Your task to perform on an android device: Check the news Image 0: 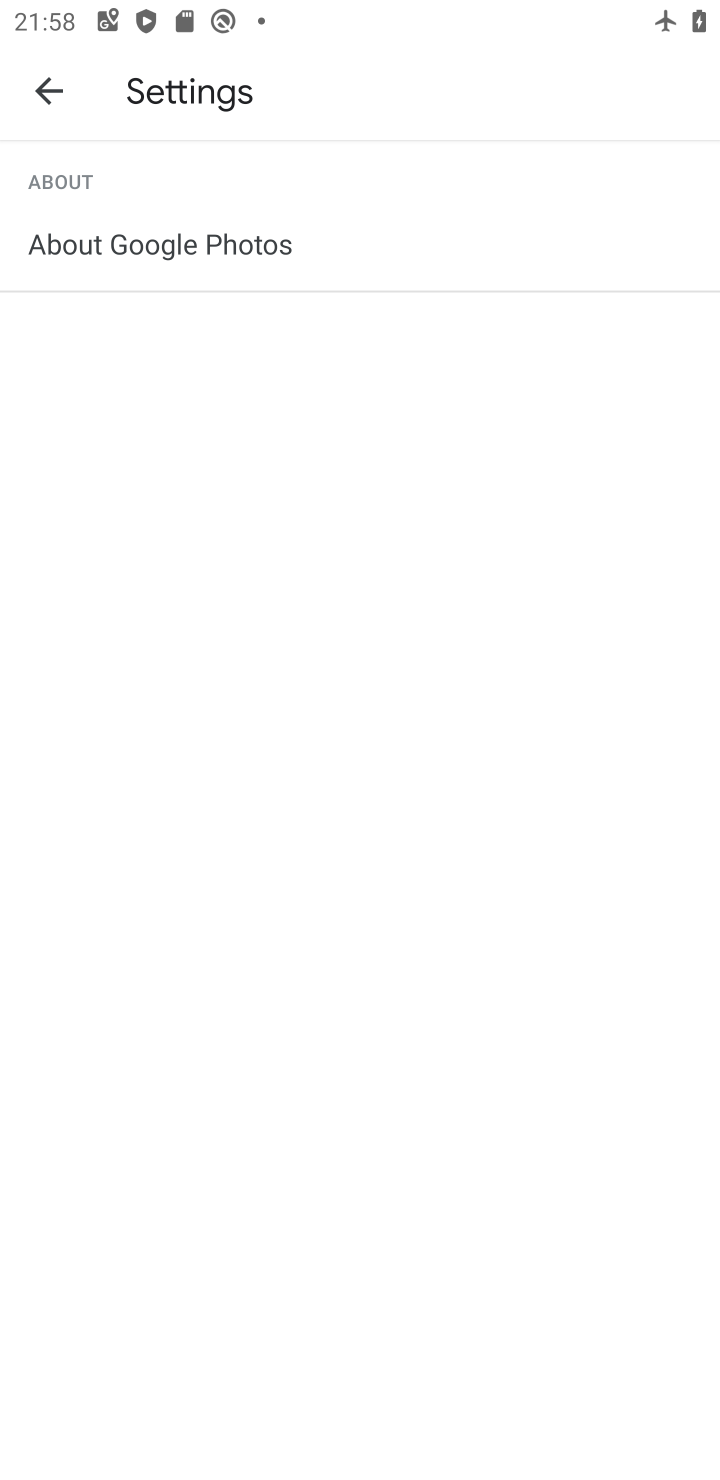
Step 0: press home button
Your task to perform on an android device: Check the news Image 1: 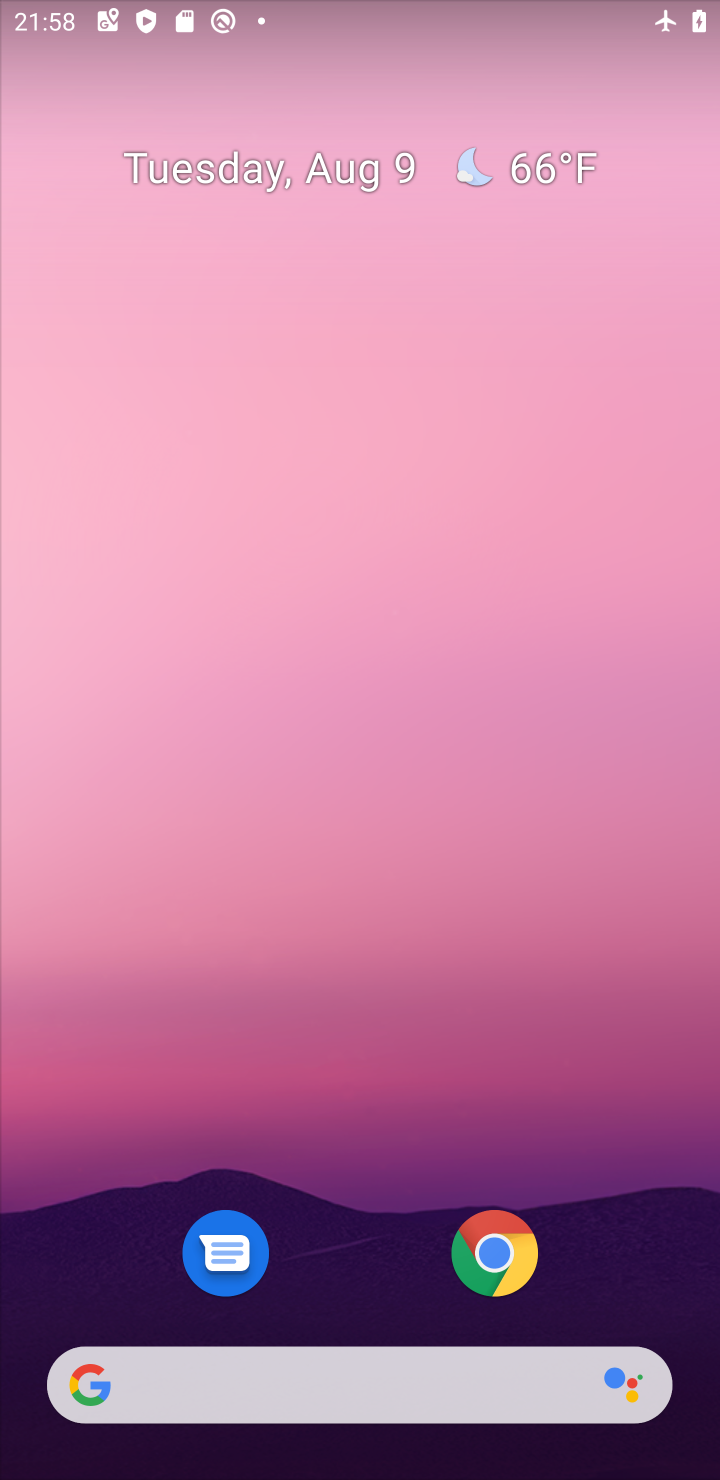
Step 1: click (457, 1305)
Your task to perform on an android device: Check the news Image 2: 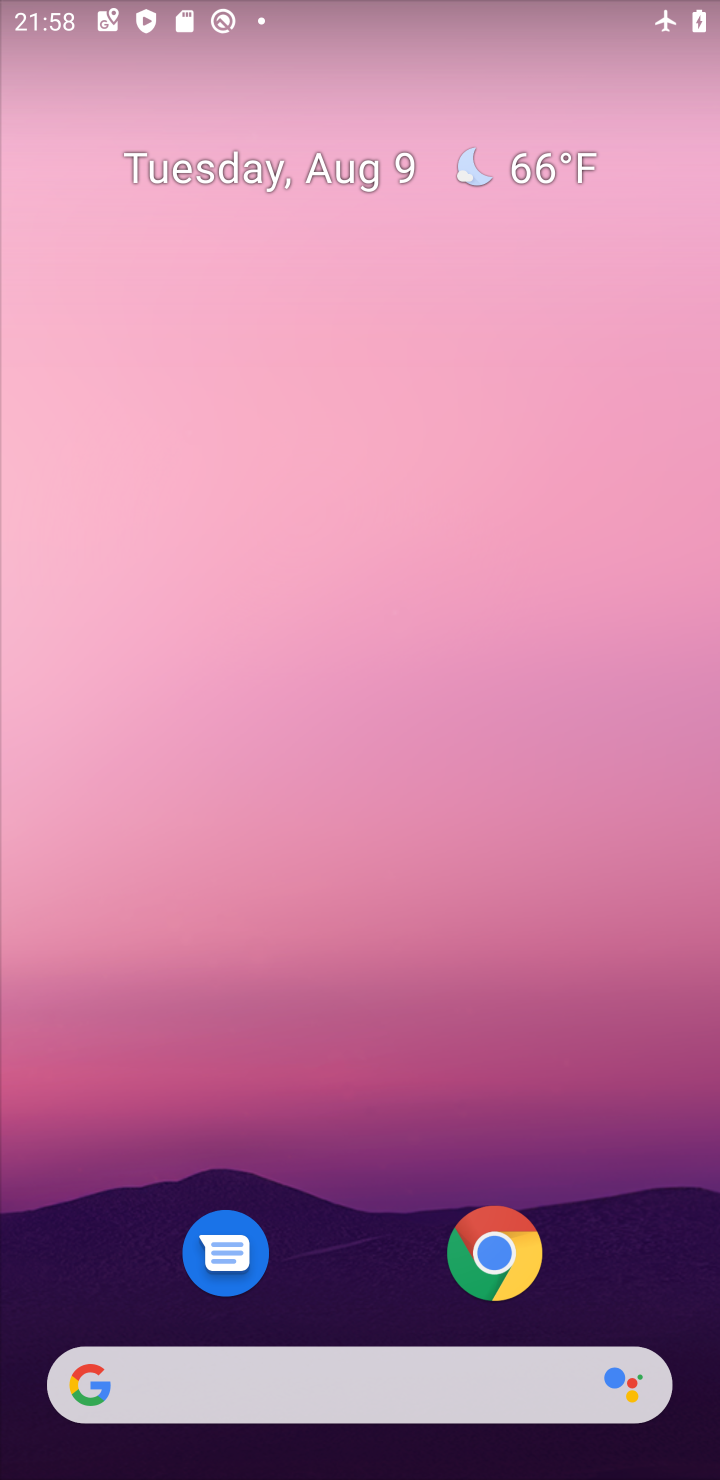
Step 2: drag from (366, 1245) to (546, 397)
Your task to perform on an android device: Check the news Image 3: 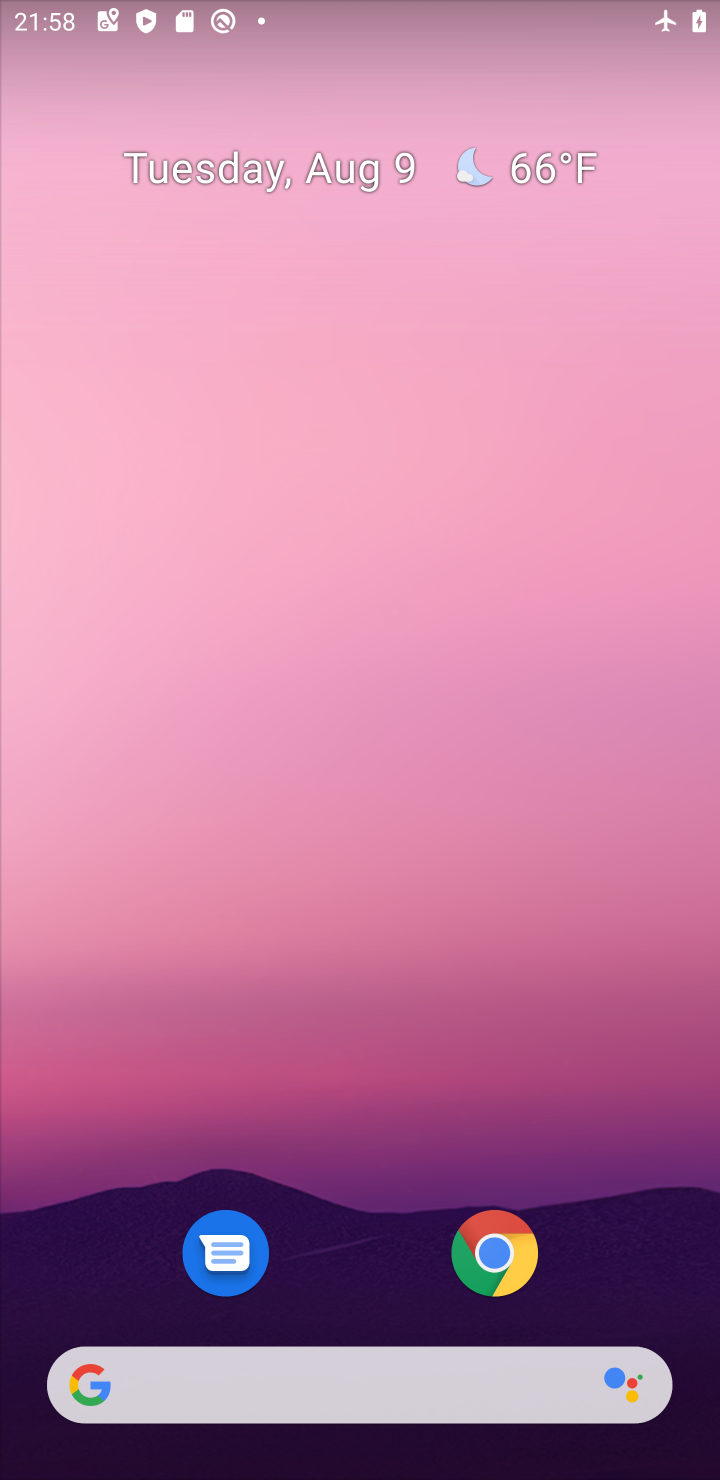
Step 3: drag from (372, 914) to (523, 292)
Your task to perform on an android device: Check the news Image 4: 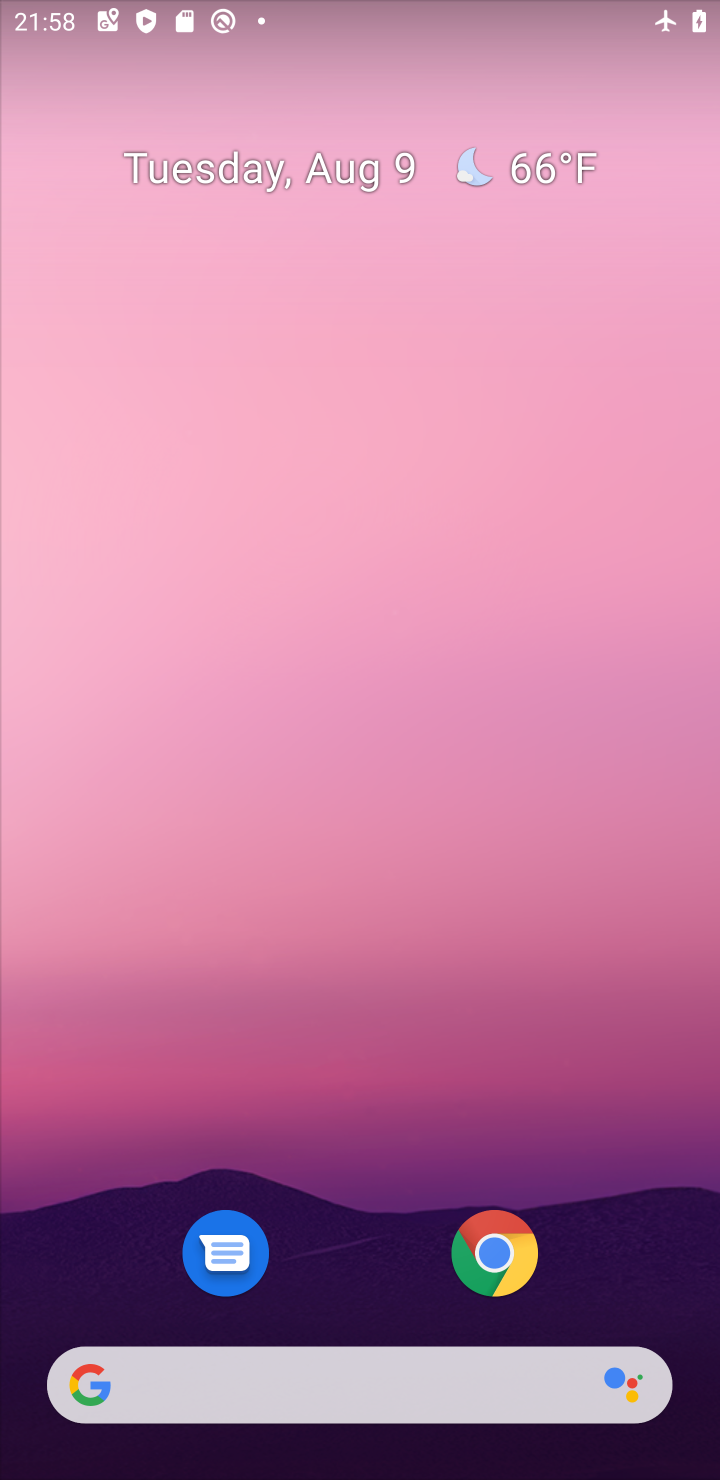
Step 4: drag from (313, 1100) to (535, 129)
Your task to perform on an android device: Check the news Image 5: 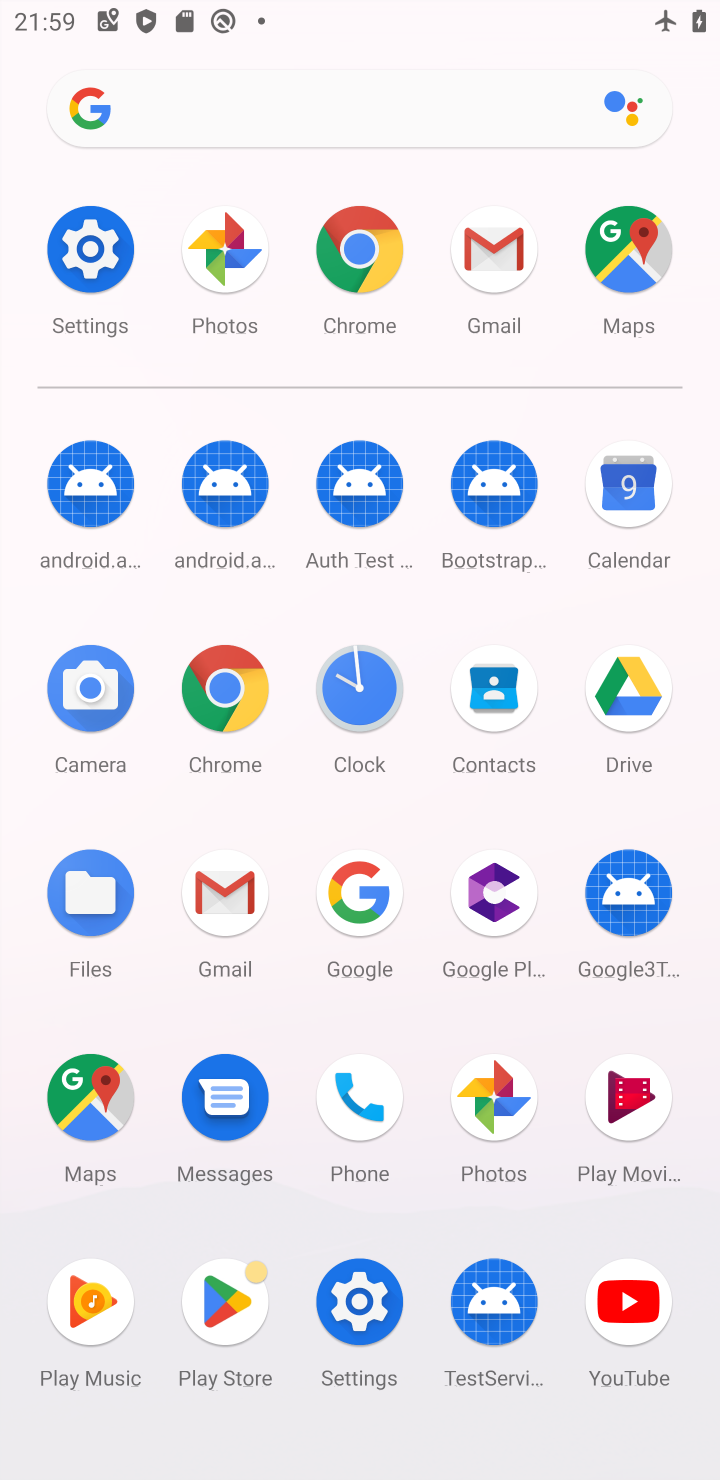
Step 5: click (219, 687)
Your task to perform on an android device: Check the news Image 6: 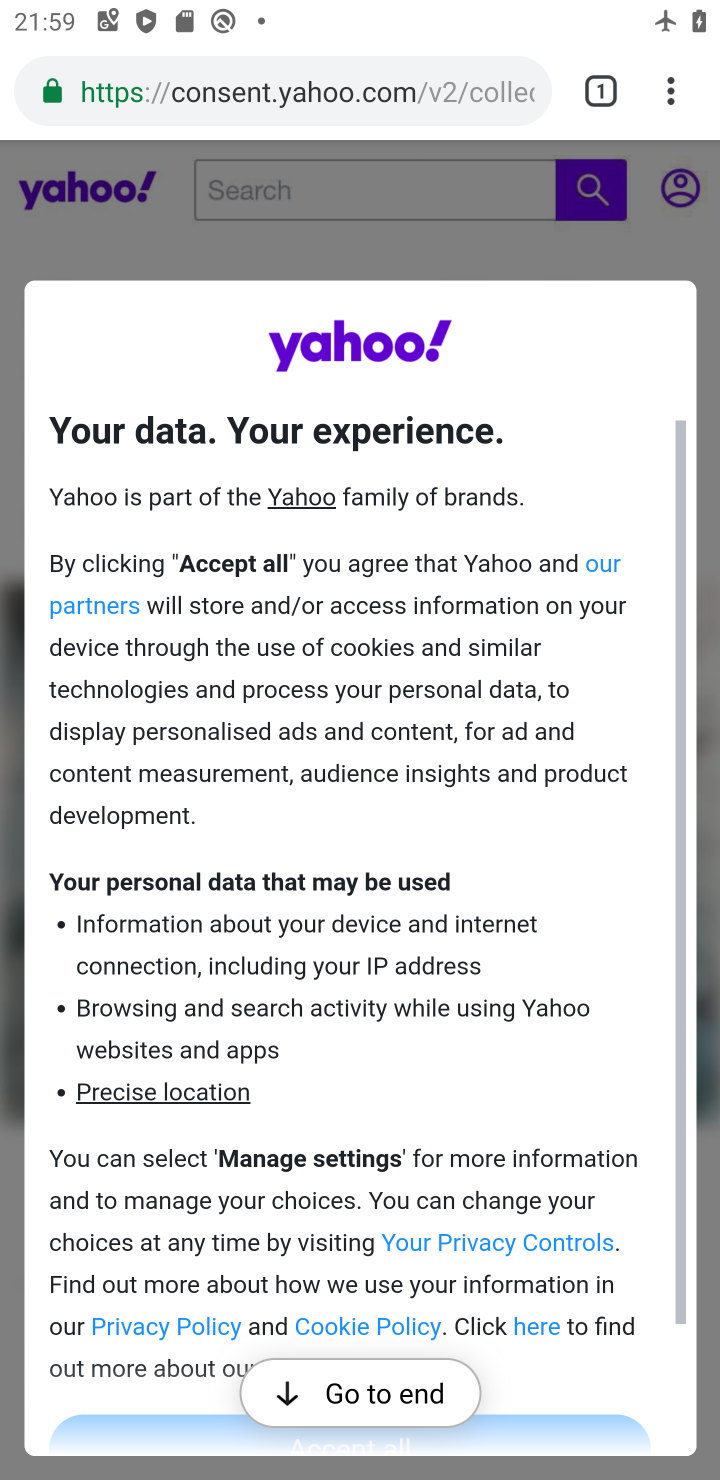
Step 6: click (312, 81)
Your task to perform on an android device: Check the news Image 7: 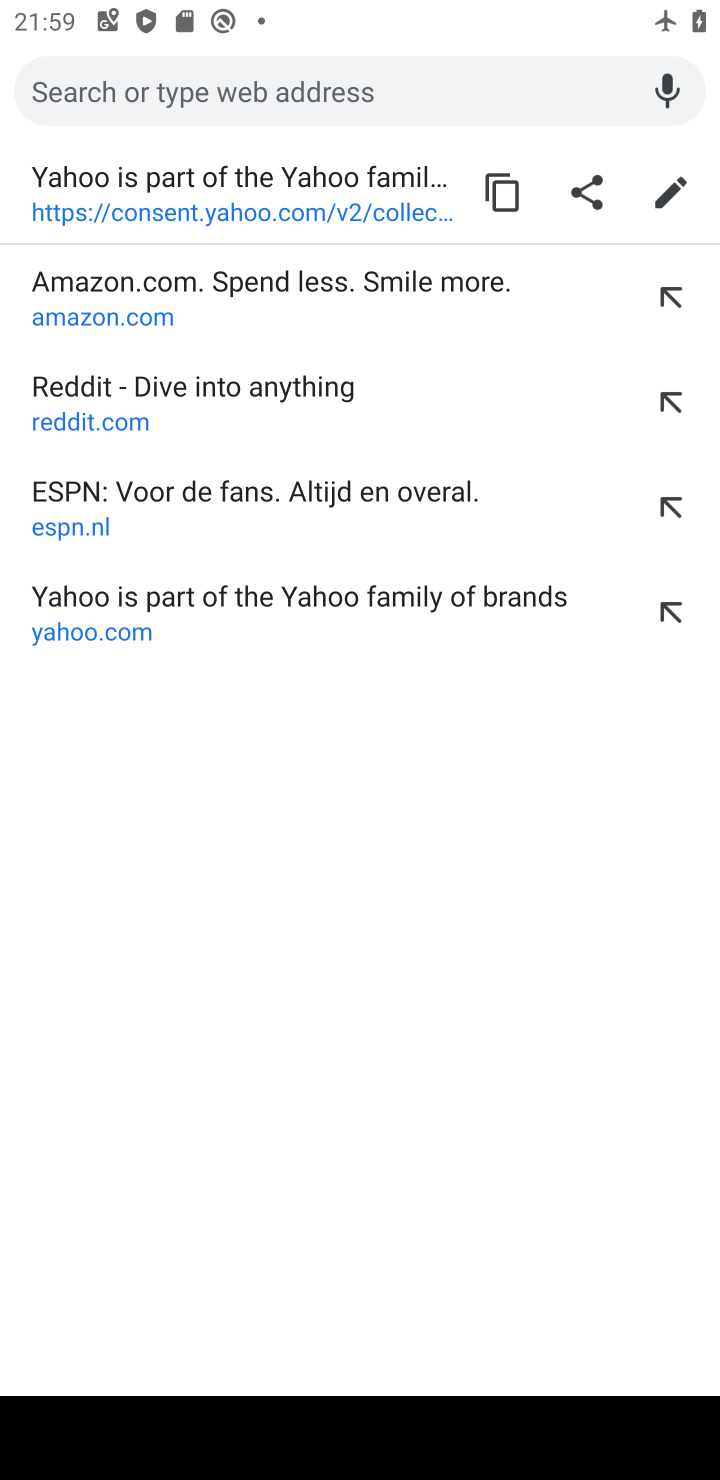
Step 7: type "news"
Your task to perform on an android device: Check the news Image 8: 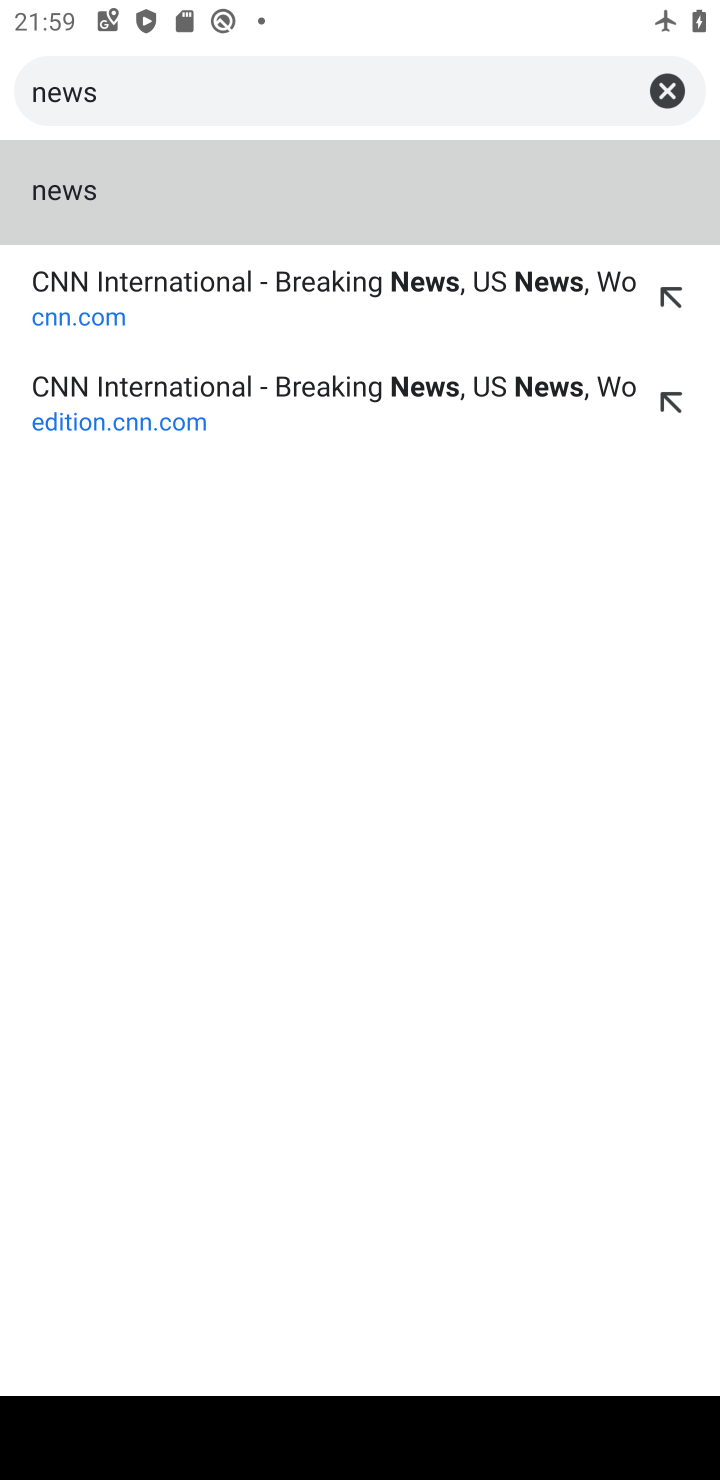
Step 8: click (63, 173)
Your task to perform on an android device: Check the news Image 9: 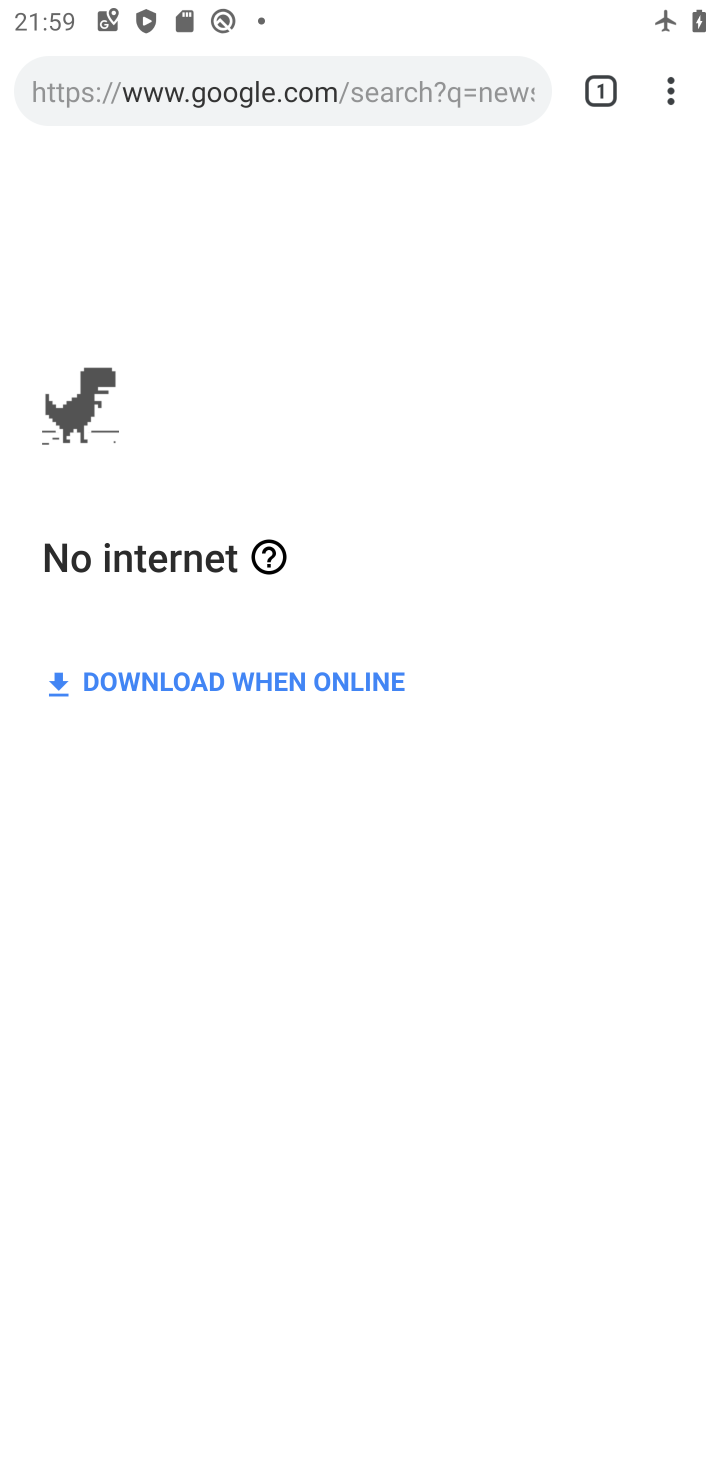
Step 9: task complete